Your task to perform on an android device: Search for the most popular books on Goodreads Image 0: 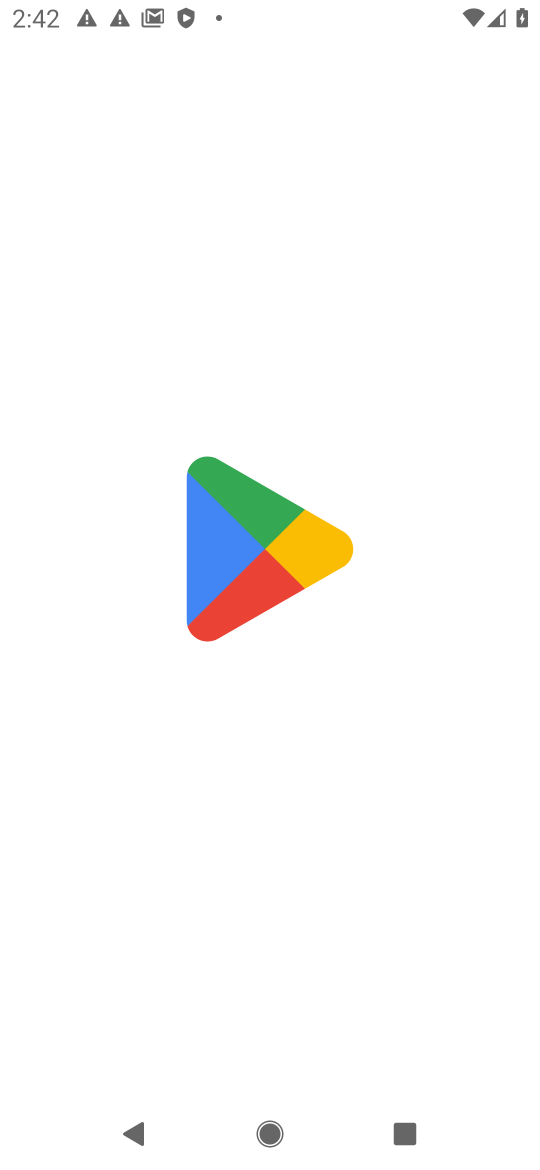
Step 0: press home button
Your task to perform on an android device: Search for the most popular books on Goodreads Image 1: 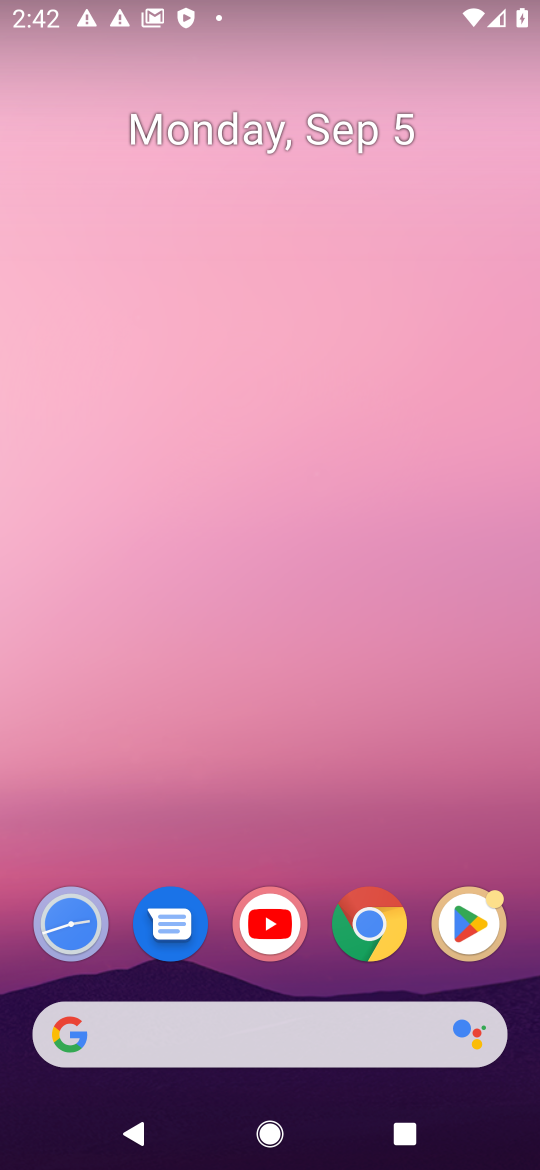
Step 1: drag from (258, 999) to (73, 60)
Your task to perform on an android device: Search for the most popular books on Goodreads Image 2: 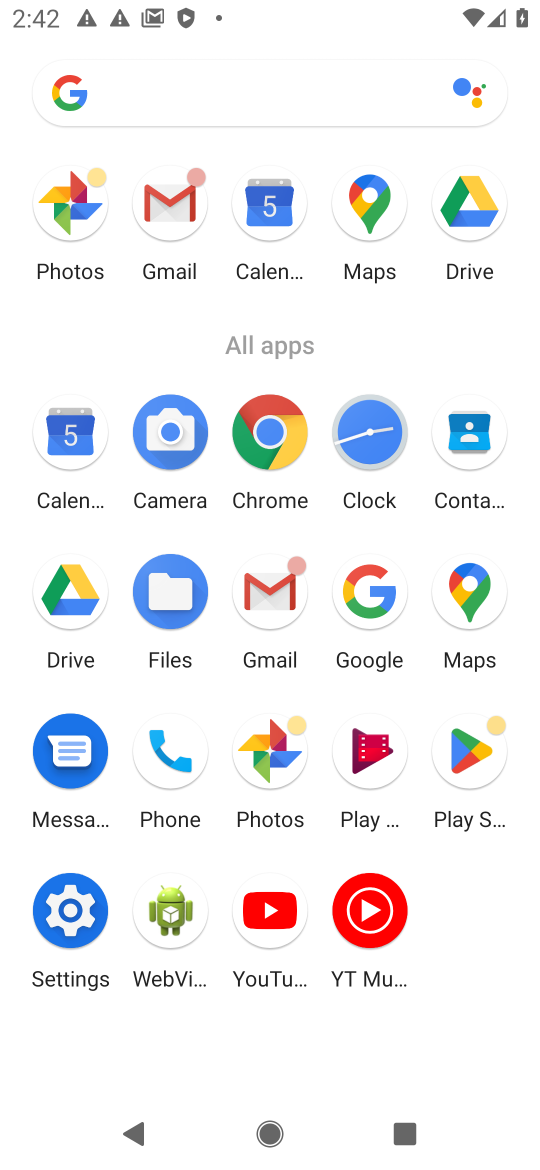
Step 2: click (368, 593)
Your task to perform on an android device: Search for the most popular books on Goodreads Image 3: 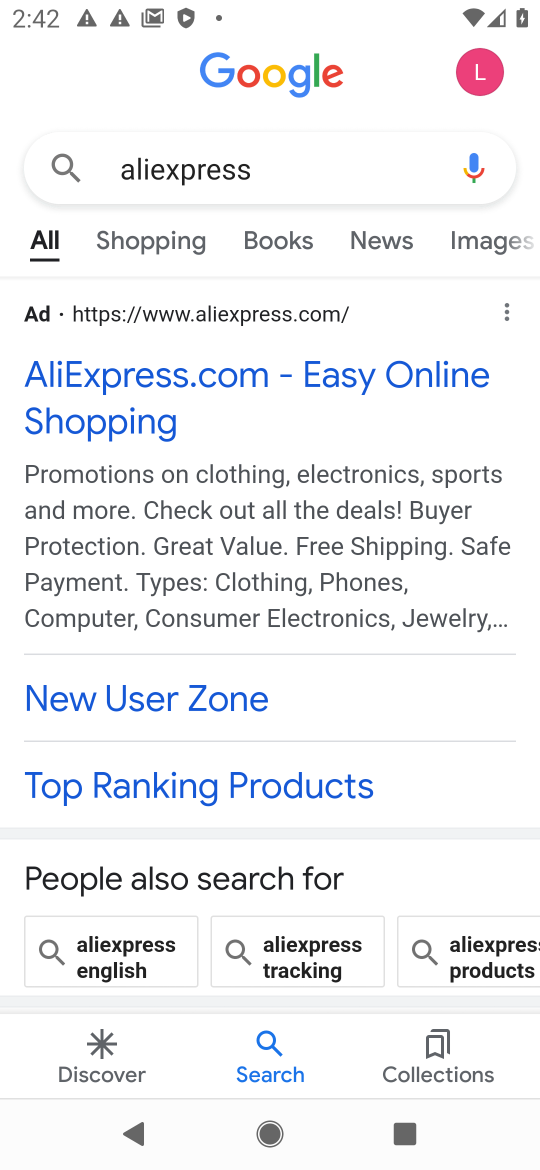
Step 3: click (293, 188)
Your task to perform on an android device: Search for the most popular books on Goodreads Image 4: 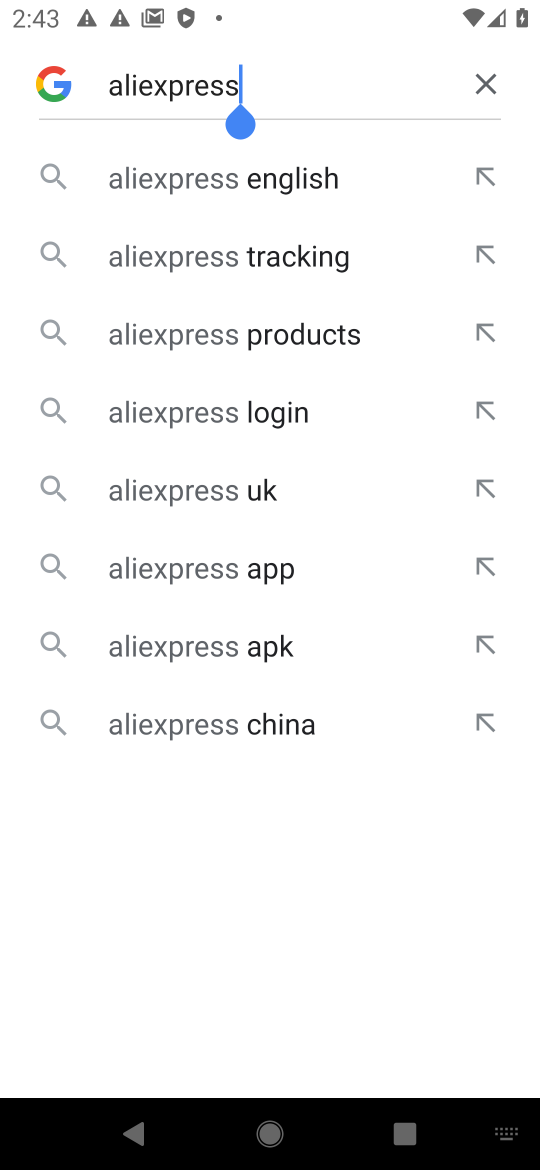
Step 4: click (483, 82)
Your task to perform on an android device: Search for the most popular books on Goodreads Image 5: 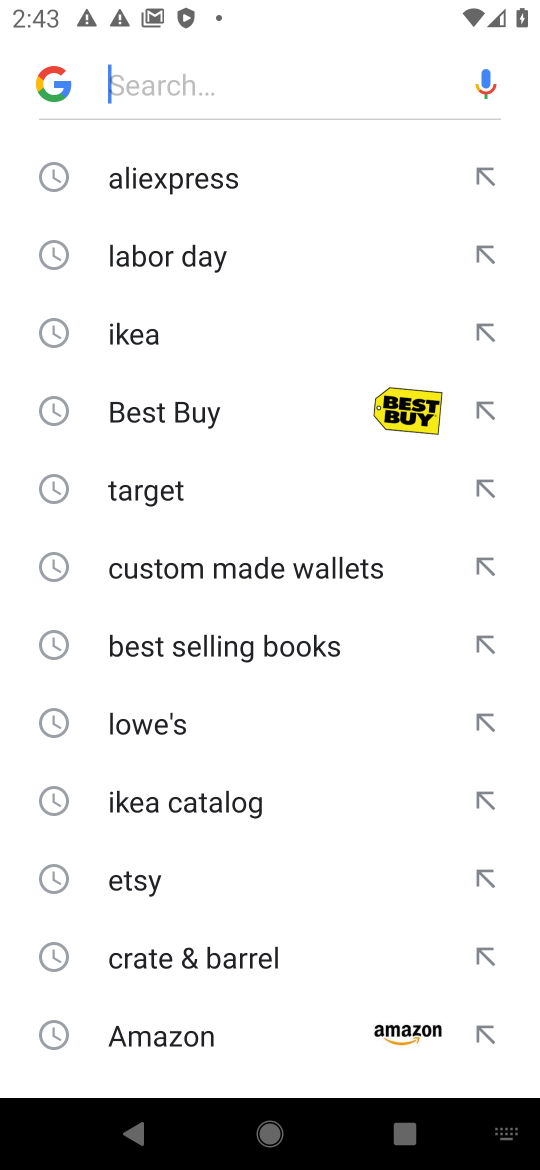
Step 5: type "Goodreads"
Your task to perform on an android device: Search for the most popular books on Goodreads Image 6: 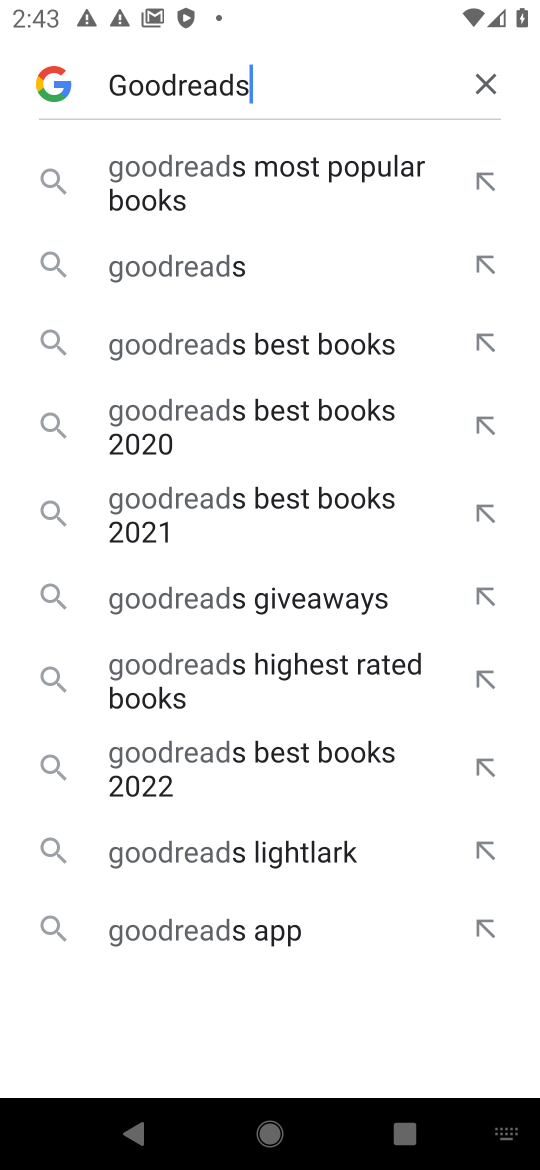
Step 6: click (176, 256)
Your task to perform on an android device: Search for the most popular books on Goodreads Image 7: 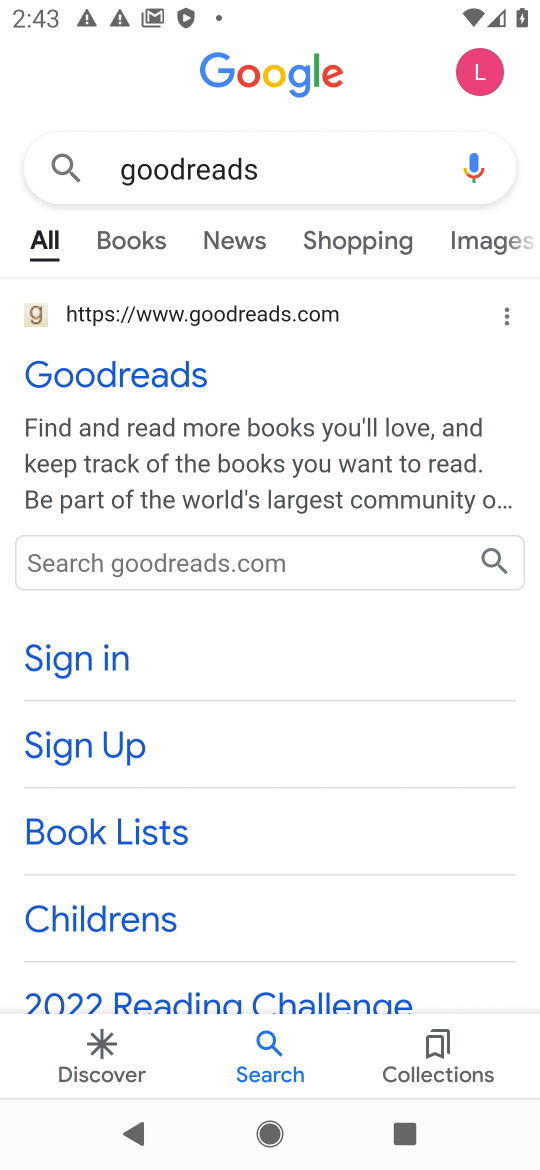
Step 7: click (119, 390)
Your task to perform on an android device: Search for the most popular books on Goodreads Image 8: 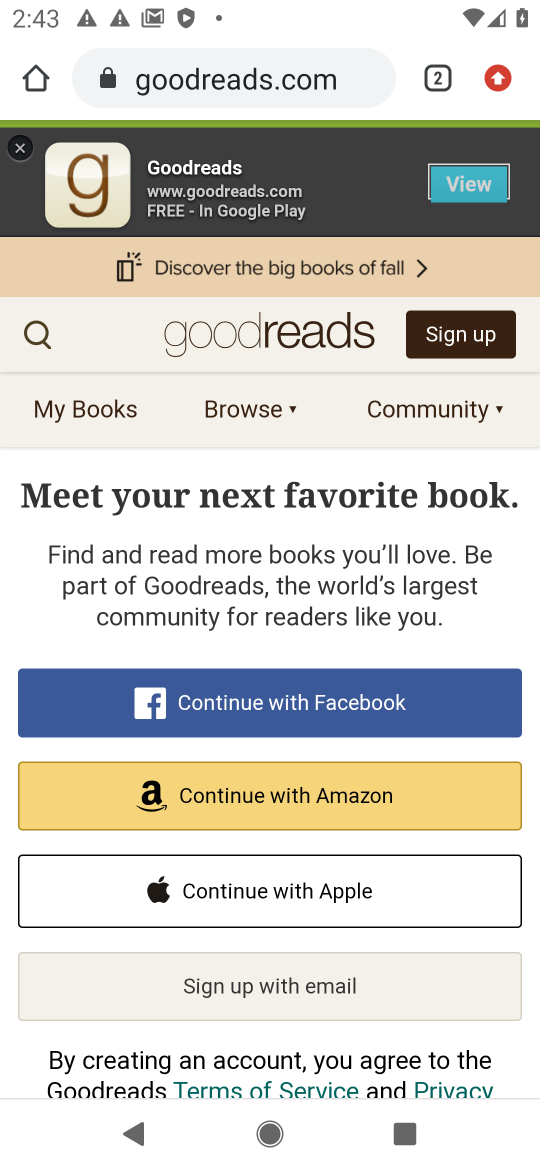
Step 8: click (14, 330)
Your task to perform on an android device: Search for the most popular books on Goodreads Image 9: 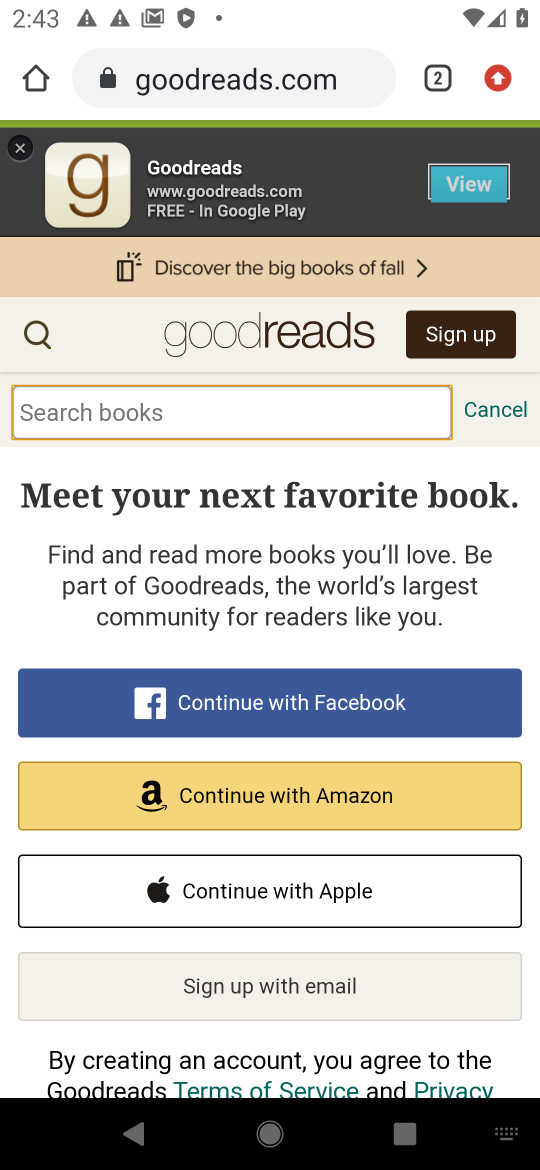
Step 9: click (161, 408)
Your task to perform on an android device: Search for the most popular books on Goodreads Image 10: 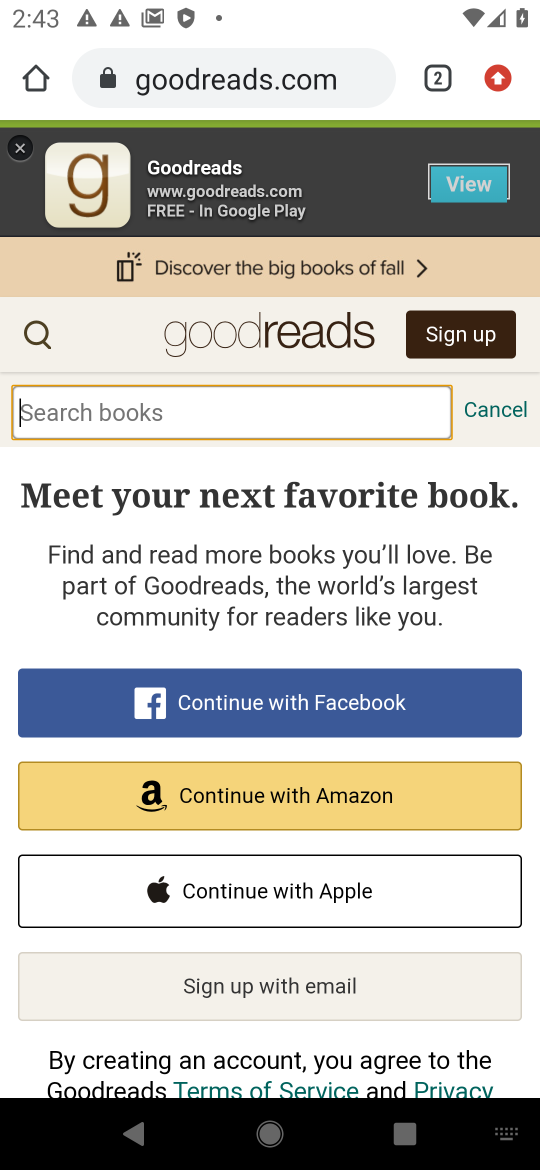
Step 10: type "the most popular books"
Your task to perform on an android device: Search for the most popular books on Goodreads Image 11: 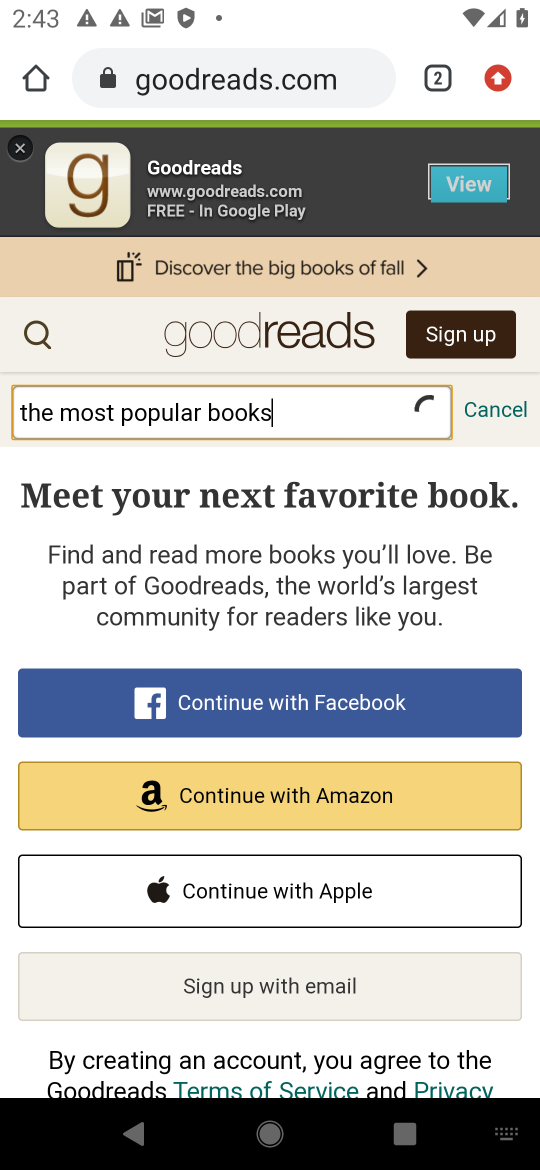
Step 11: type ""
Your task to perform on an android device: Search for the most popular books on Goodreads Image 12: 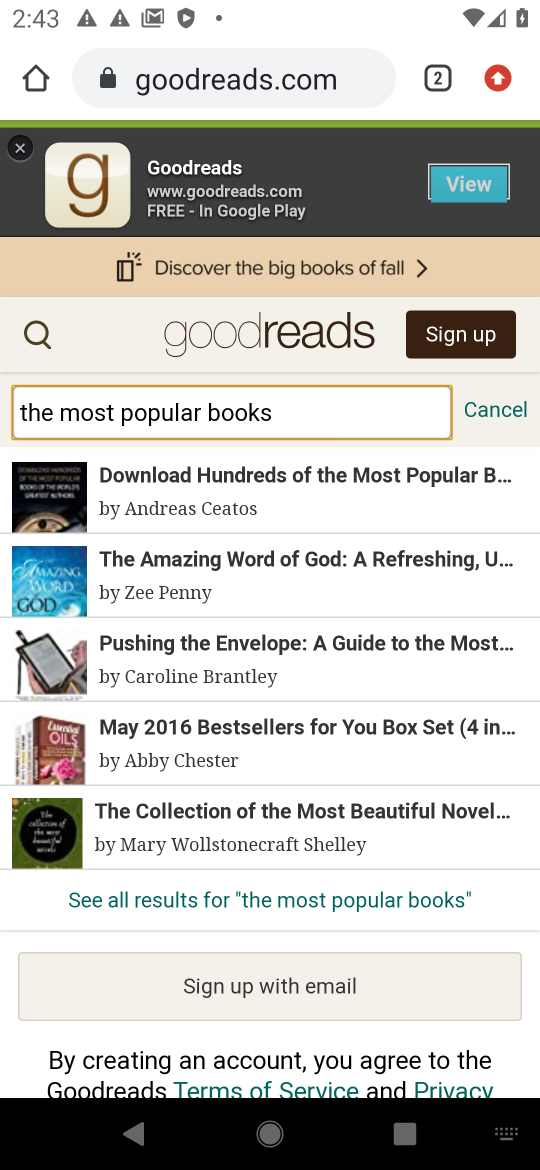
Step 12: click (302, 482)
Your task to perform on an android device: Search for the most popular books on Goodreads Image 13: 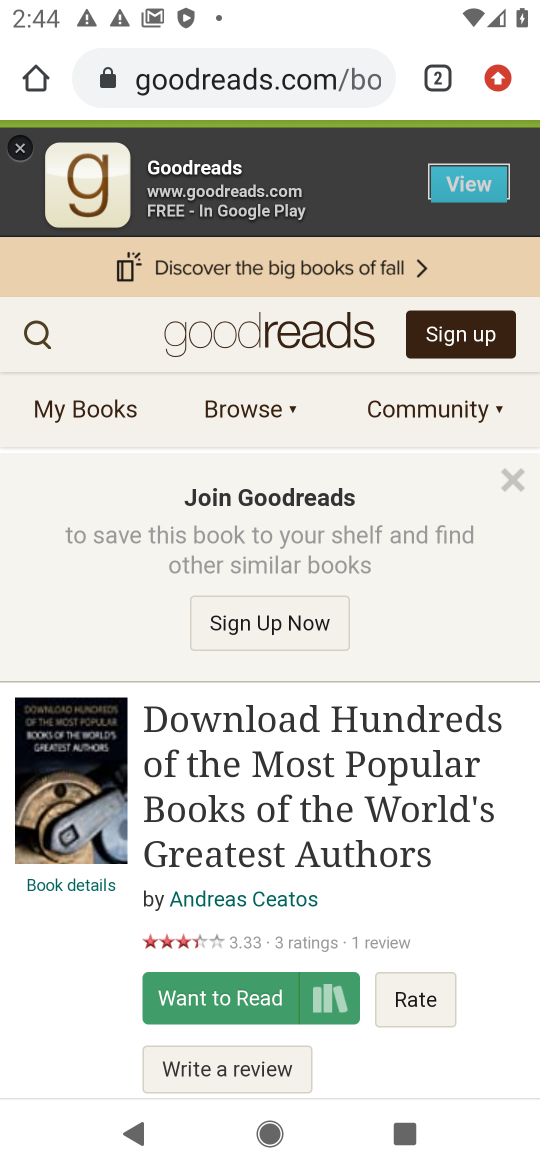
Step 13: task complete